Your task to perform on an android device: toggle pop-ups in chrome Image 0: 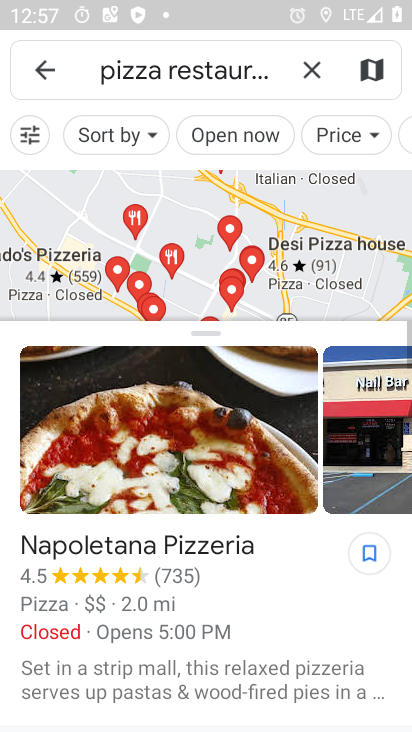
Step 0: press home button
Your task to perform on an android device: toggle pop-ups in chrome Image 1: 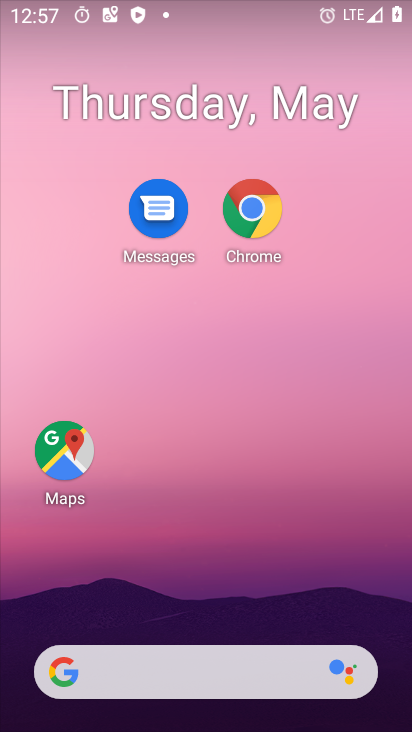
Step 1: click (241, 226)
Your task to perform on an android device: toggle pop-ups in chrome Image 2: 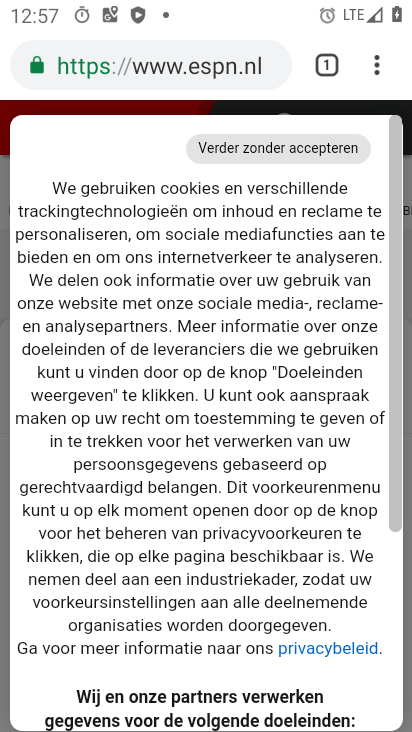
Step 2: click (371, 63)
Your task to perform on an android device: toggle pop-ups in chrome Image 3: 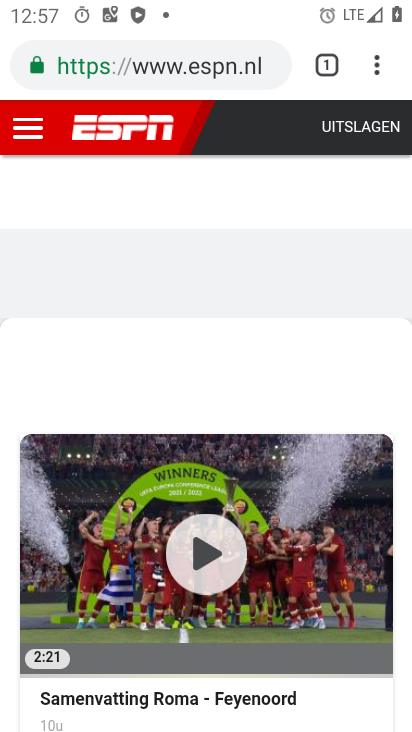
Step 3: click (378, 73)
Your task to perform on an android device: toggle pop-ups in chrome Image 4: 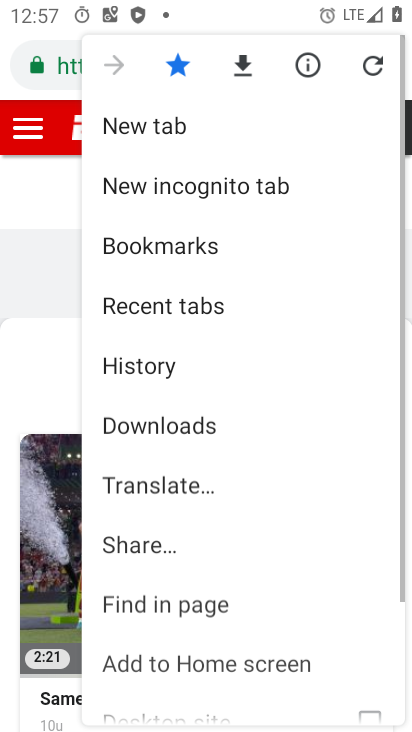
Step 4: click (375, 67)
Your task to perform on an android device: toggle pop-ups in chrome Image 5: 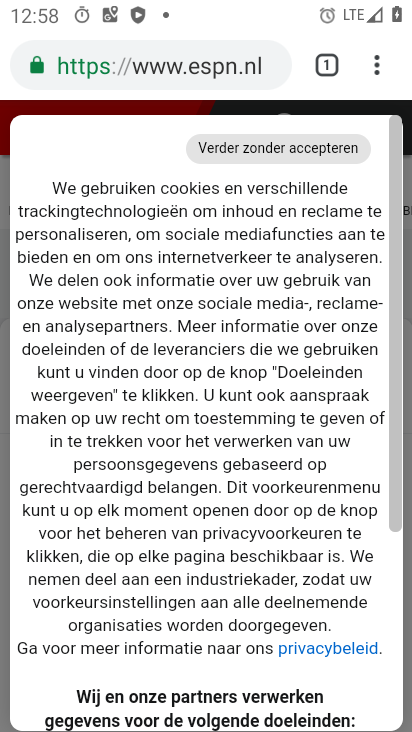
Step 5: click (370, 66)
Your task to perform on an android device: toggle pop-ups in chrome Image 6: 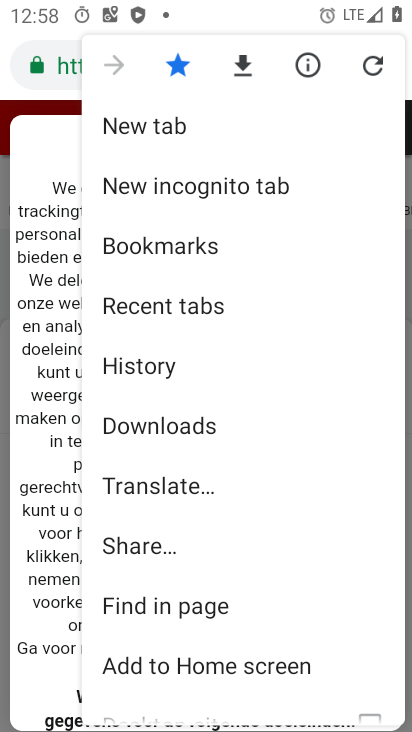
Step 6: drag from (221, 614) to (222, 112)
Your task to perform on an android device: toggle pop-ups in chrome Image 7: 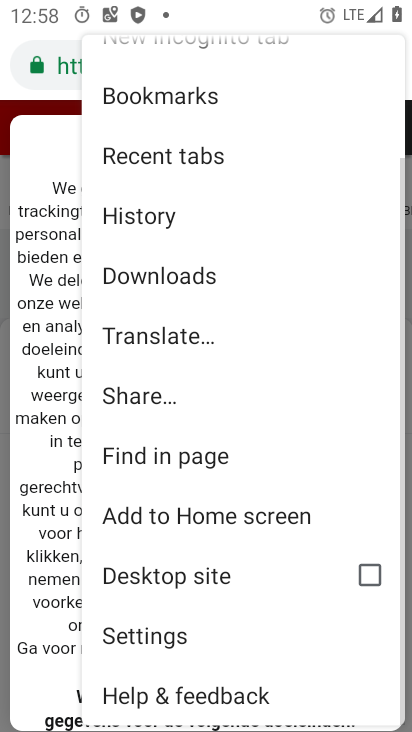
Step 7: click (142, 624)
Your task to perform on an android device: toggle pop-ups in chrome Image 8: 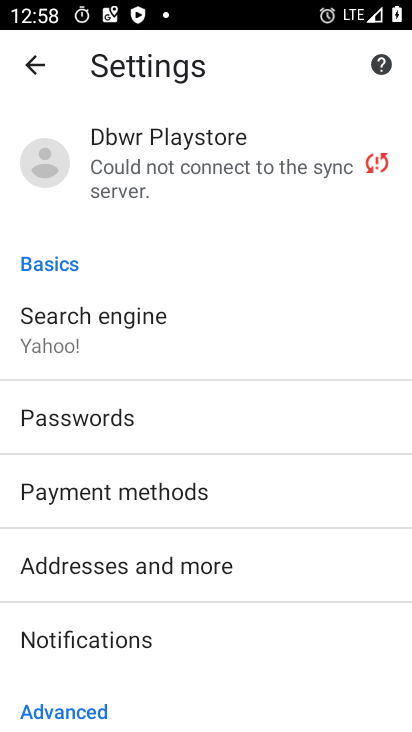
Step 8: drag from (137, 712) to (139, 369)
Your task to perform on an android device: toggle pop-ups in chrome Image 9: 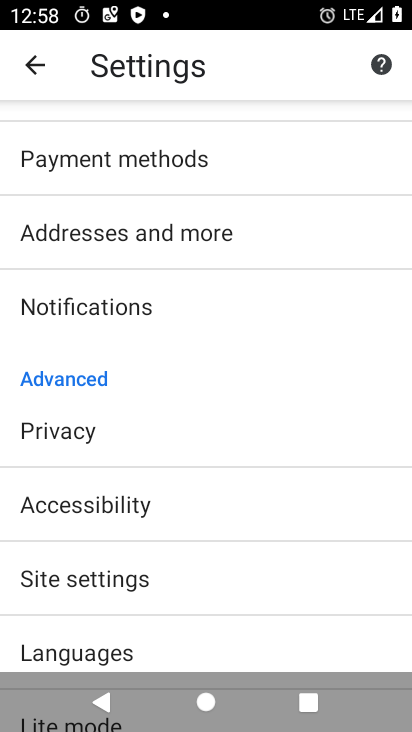
Step 9: click (116, 573)
Your task to perform on an android device: toggle pop-ups in chrome Image 10: 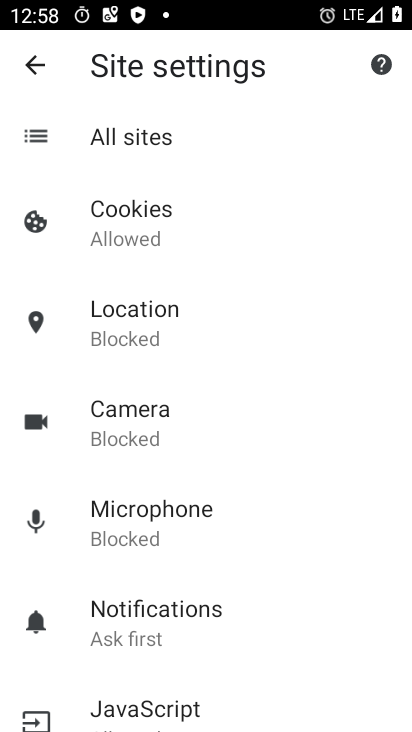
Step 10: drag from (171, 647) to (172, 482)
Your task to perform on an android device: toggle pop-ups in chrome Image 11: 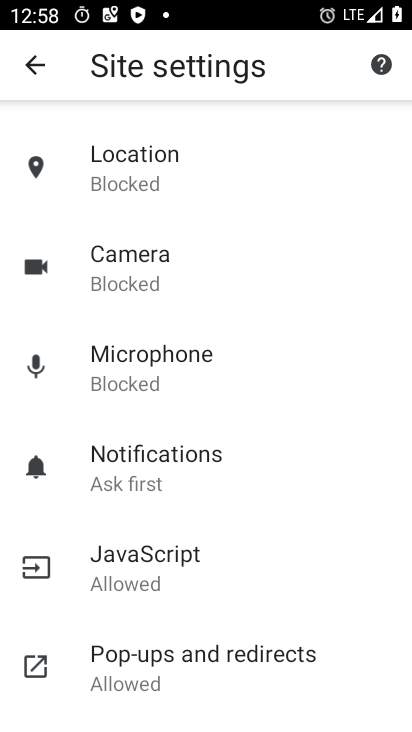
Step 11: click (177, 651)
Your task to perform on an android device: toggle pop-ups in chrome Image 12: 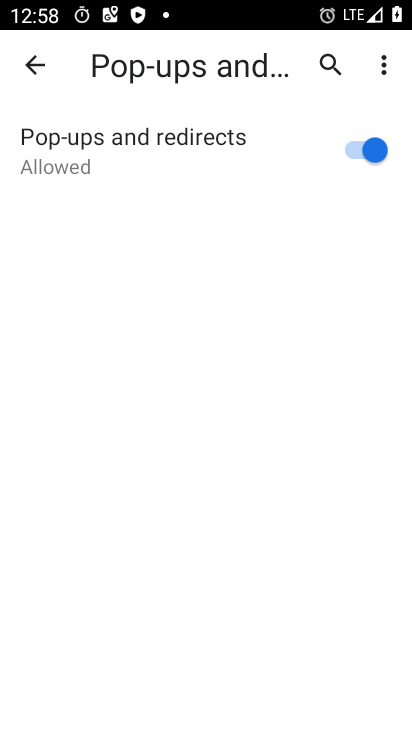
Step 12: click (350, 146)
Your task to perform on an android device: toggle pop-ups in chrome Image 13: 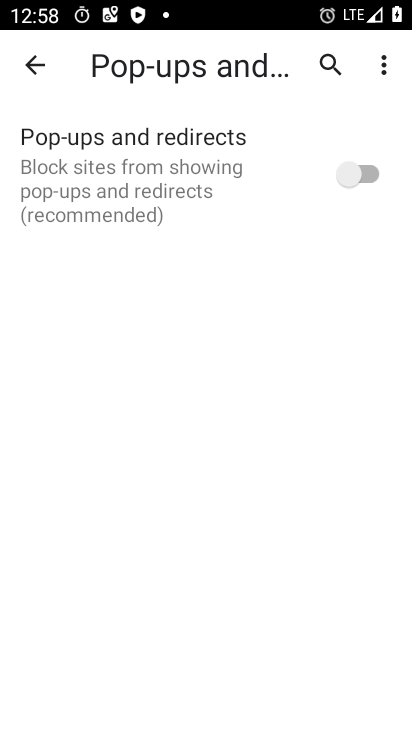
Step 13: task complete